Your task to perform on an android device: Open Yahoo.com Image 0: 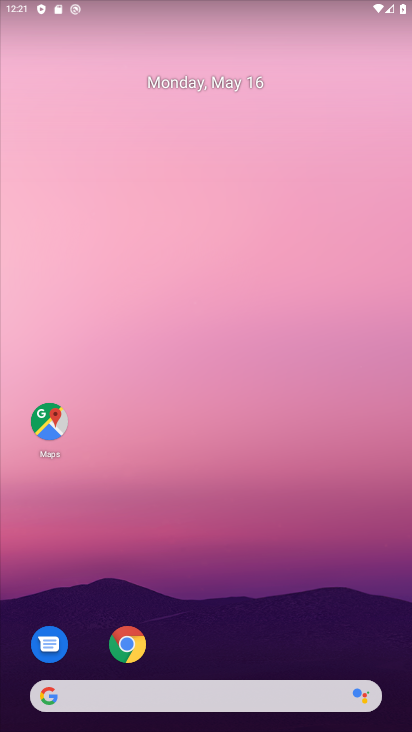
Step 0: click (132, 660)
Your task to perform on an android device: Open Yahoo.com Image 1: 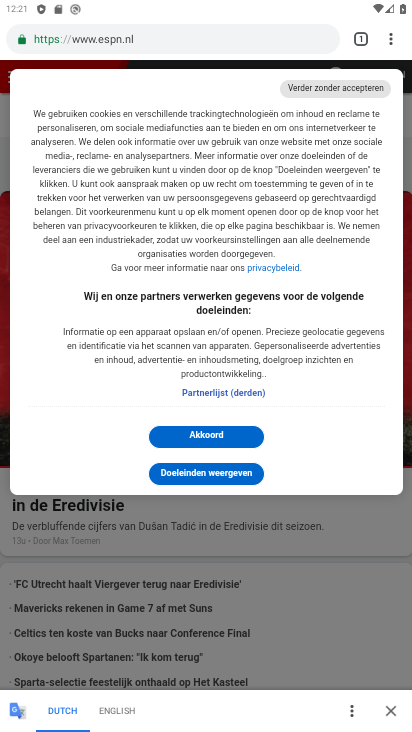
Step 1: click (158, 51)
Your task to perform on an android device: Open Yahoo.com Image 2: 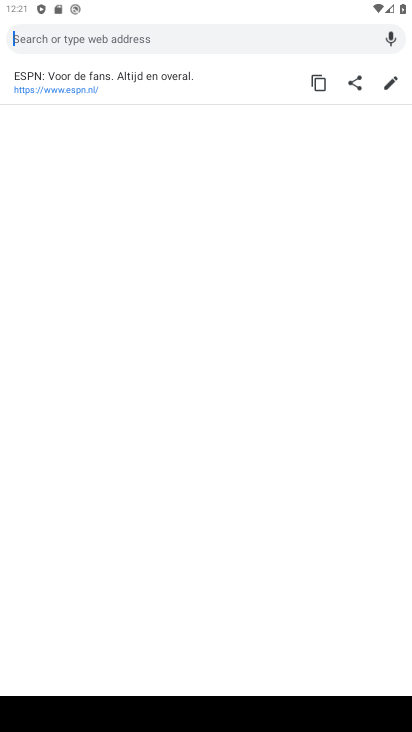
Step 2: type "yahoo.com"
Your task to perform on an android device: Open Yahoo.com Image 3: 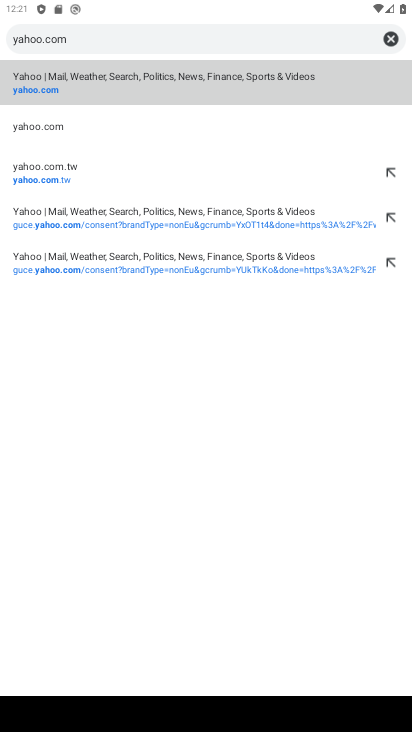
Step 3: click (214, 91)
Your task to perform on an android device: Open Yahoo.com Image 4: 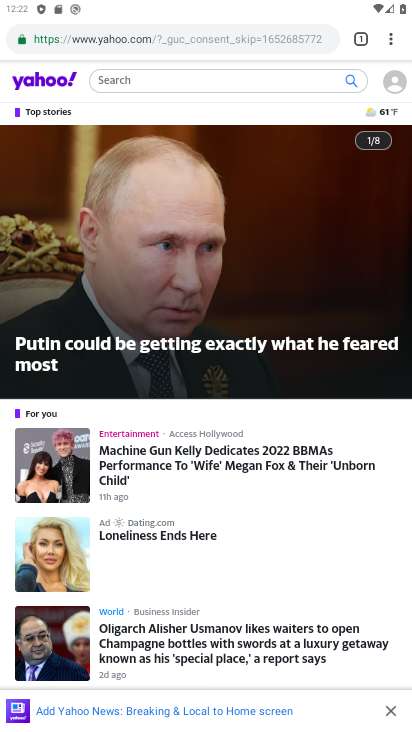
Step 4: task complete